Your task to perform on an android device: Check the weather Image 0: 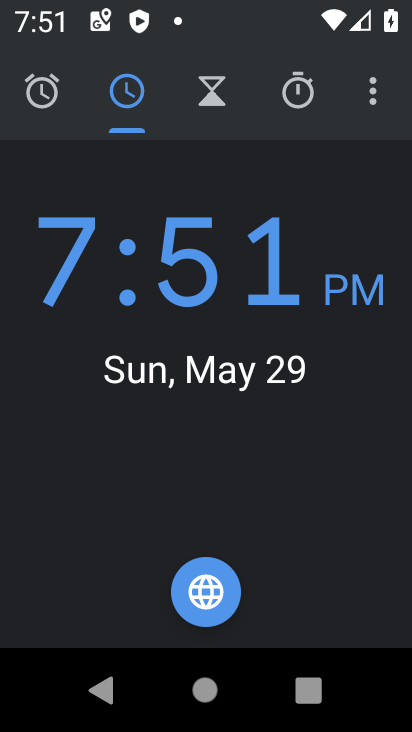
Step 0: press home button
Your task to perform on an android device: Check the weather Image 1: 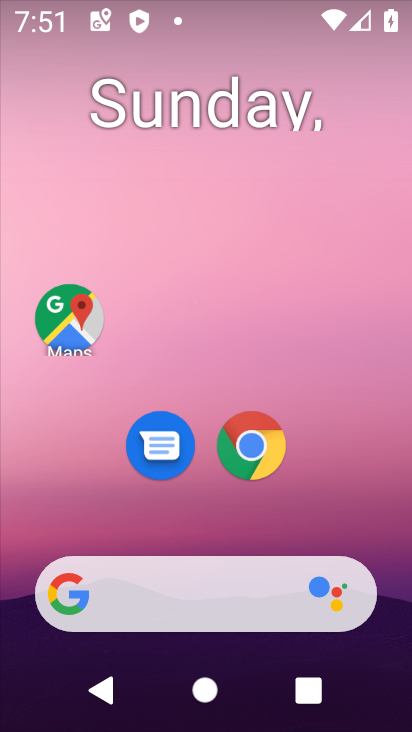
Step 1: click (124, 586)
Your task to perform on an android device: Check the weather Image 2: 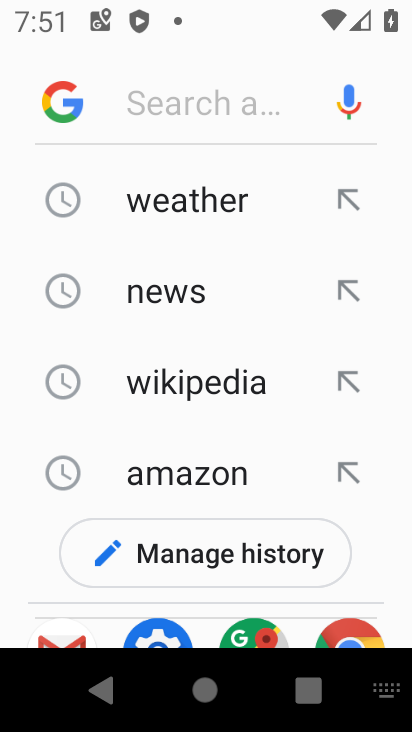
Step 2: click (216, 204)
Your task to perform on an android device: Check the weather Image 3: 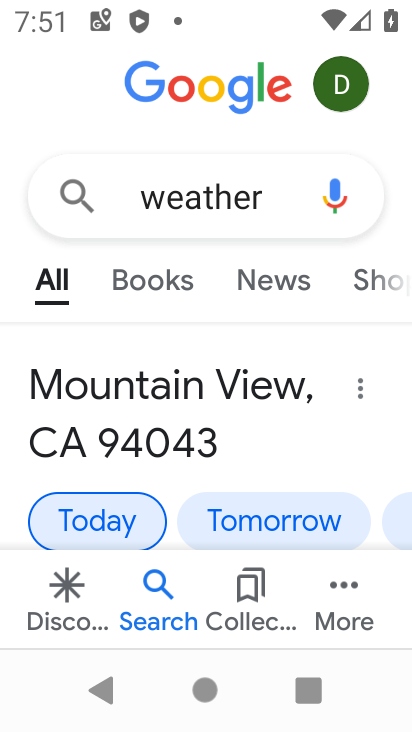
Step 3: task complete